Your task to perform on an android device: delete browsing data in the chrome app Image 0: 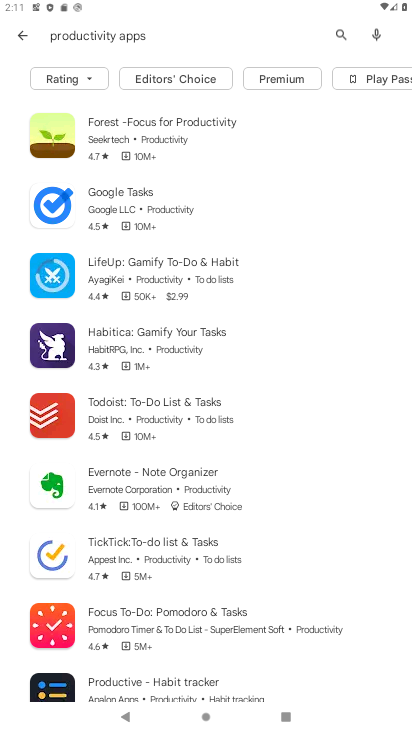
Step 0: press home button
Your task to perform on an android device: delete browsing data in the chrome app Image 1: 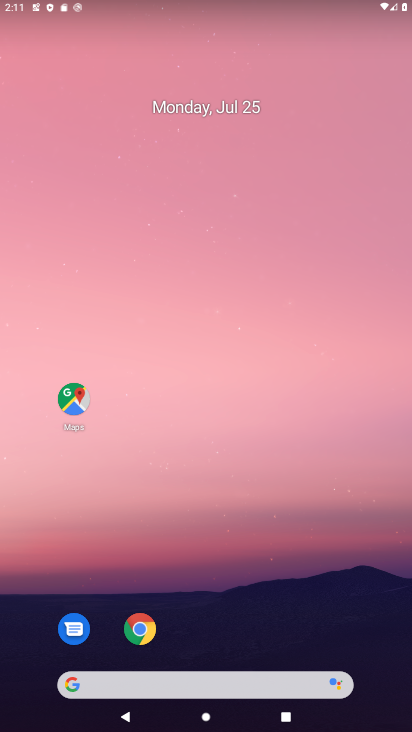
Step 1: click (151, 627)
Your task to perform on an android device: delete browsing data in the chrome app Image 2: 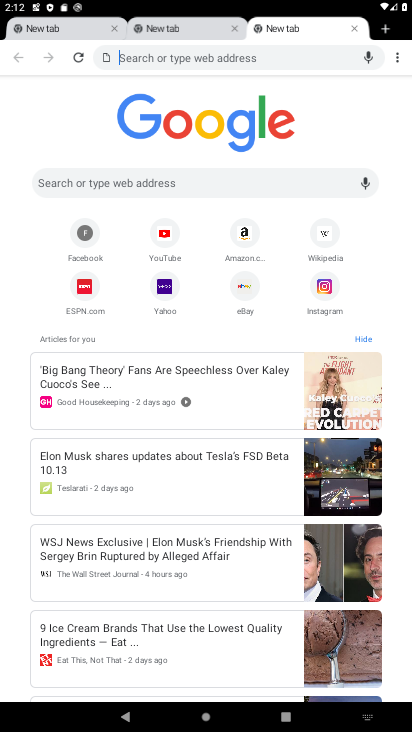
Step 2: click (399, 62)
Your task to perform on an android device: delete browsing data in the chrome app Image 3: 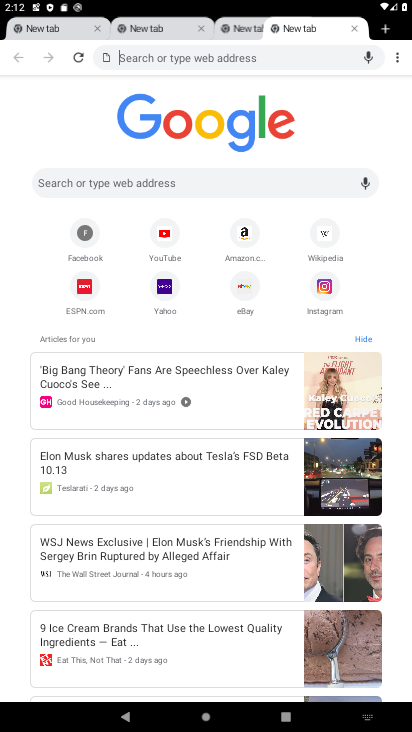
Step 3: click (399, 62)
Your task to perform on an android device: delete browsing data in the chrome app Image 4: 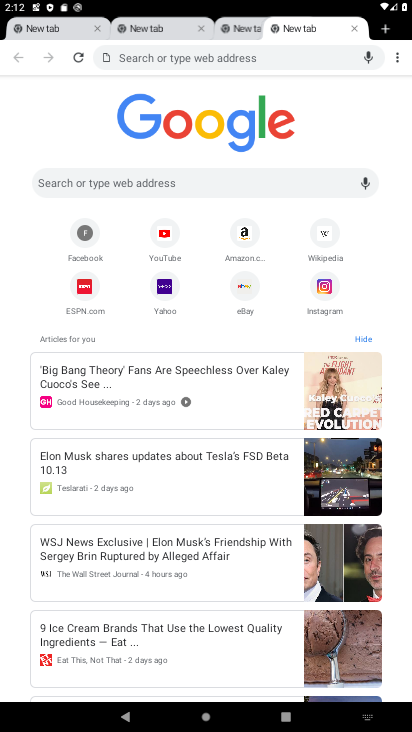
Step 4: click (399, 58)
Your task to perform on an android device: delete browsing data in the chrome app Image 5: 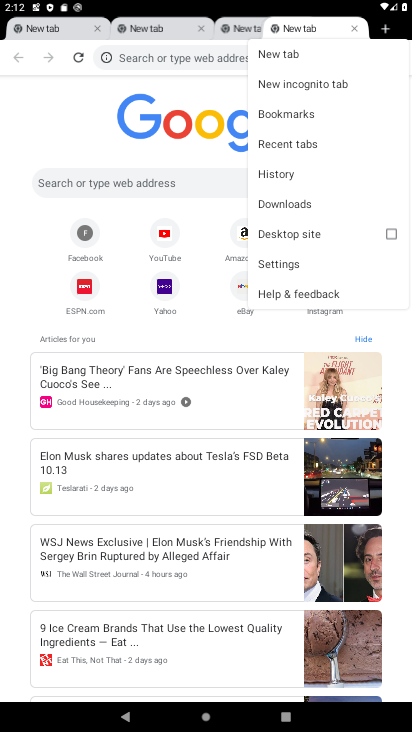
Step 5: click (270, 178)
Your task to perform on an android device: delete browsing data in the chrome app Image 6: 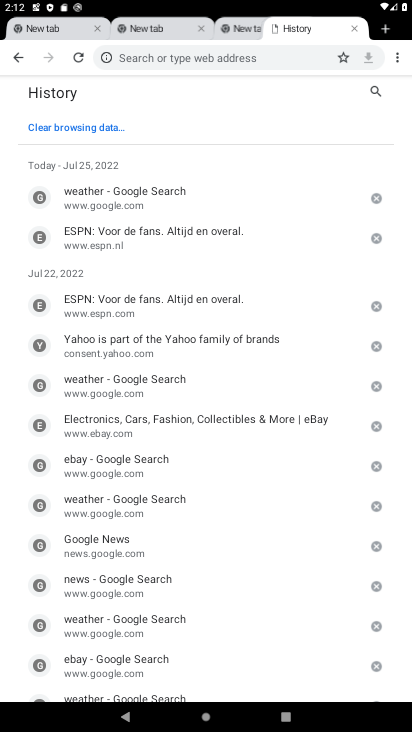
Step 6: click (48, 121)
Your task to perform on an android device: delete browsing data in the chrome app Image 7: 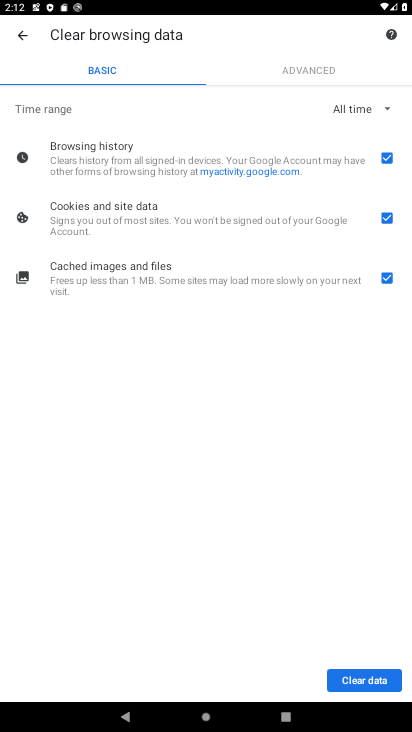
Step 7: click (379, 208)
Your task to perform on an android device: delete browsing data in the chrome app Image 8: 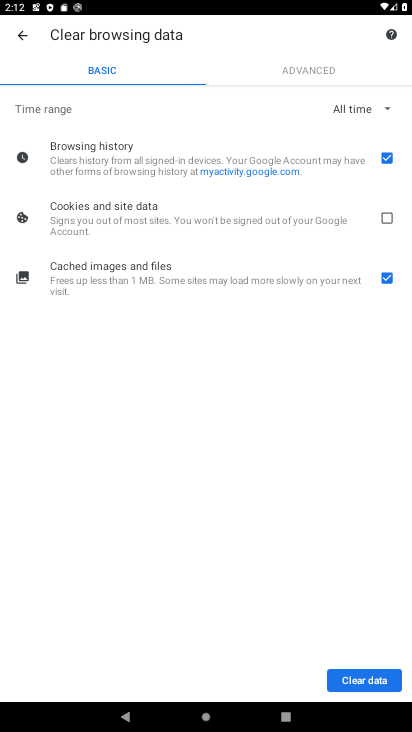
Step 8: click (382, 275)
Your task to perform on an android device: delete browsing data in the chrome app Image 9: 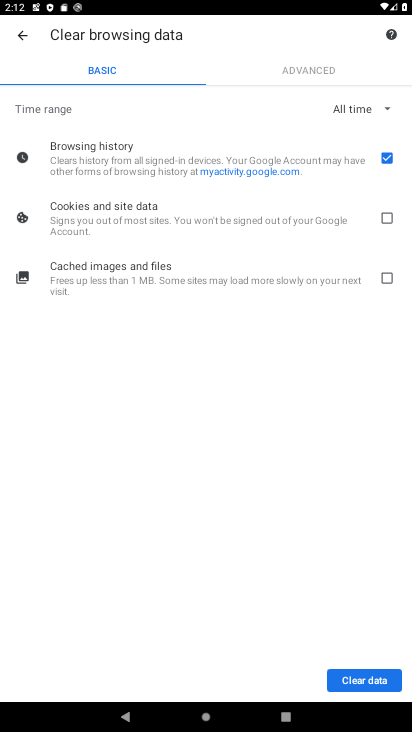
Step 9: click (403, 655)
Your task to perform on an android device: delete browsing data in the chrome app Image 10: 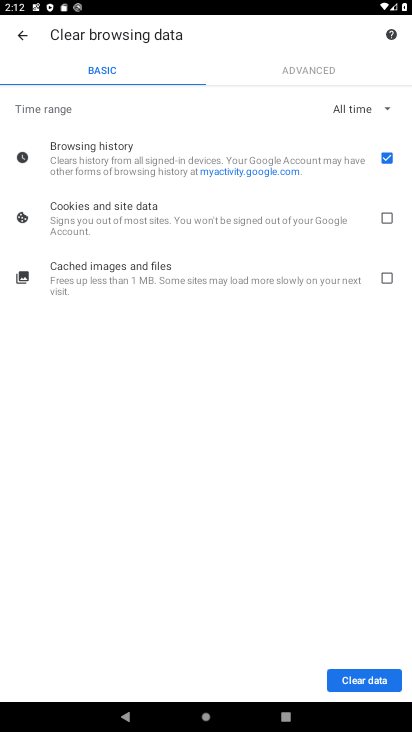
Step 10: click (385, 670)
Your task to perform on an android device: delete browsing data in the chrome app Image 11: 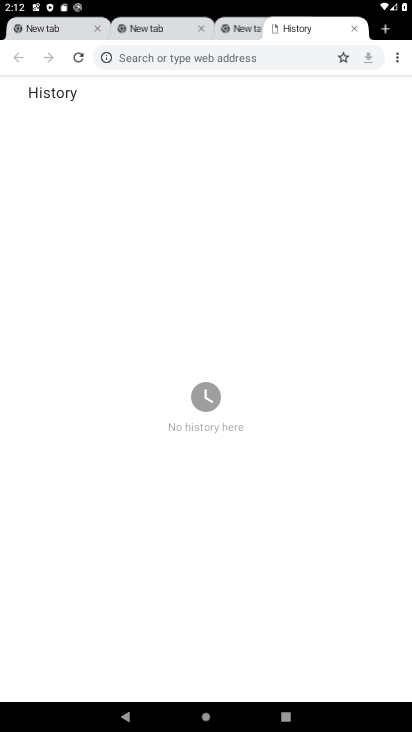
Step 11: task complete